Your task to perform on an android device: all mails in gmail Image 0: 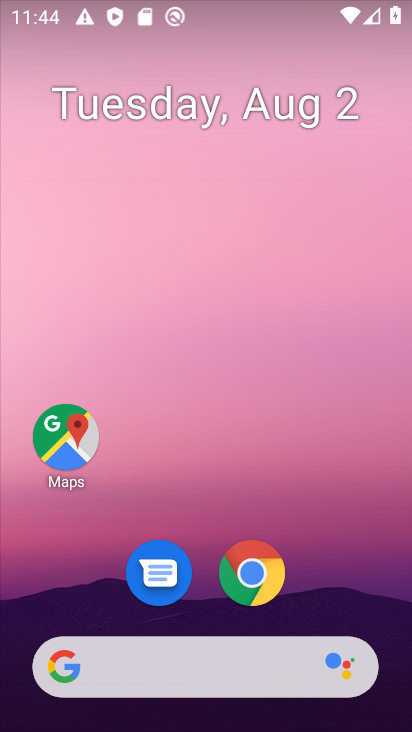
Step 0: drag from (185, 726) to (180, 111)
Your task to perform on an android device: all mails in gmail Image 1: 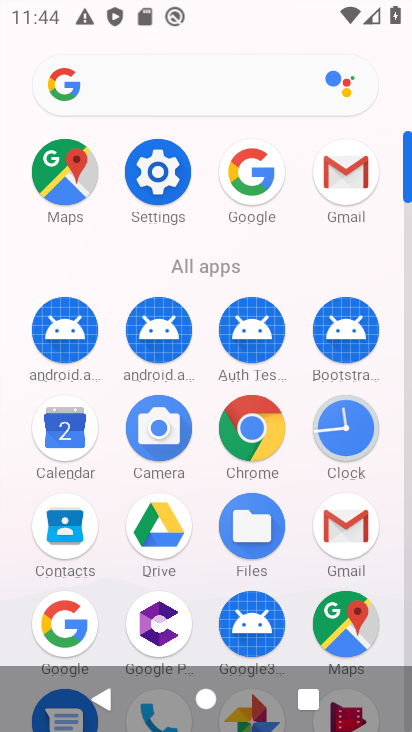
Step 1: drag from (223, 402) to (232, 6)
Your task to perform on an android device: all mails in gmail Image 2: 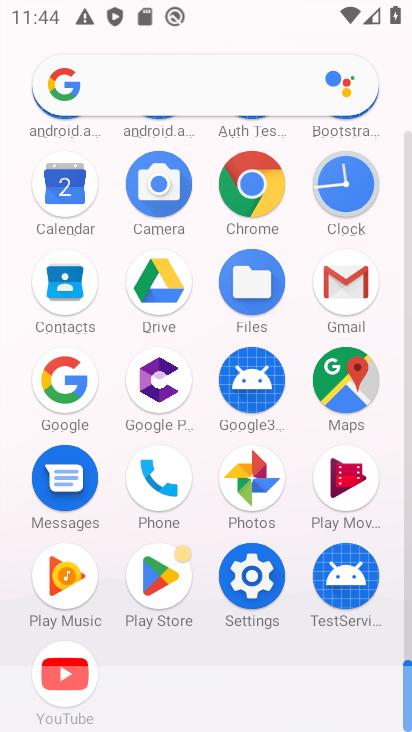
Step 2: click (354, 294)
Your task to perform on an android device: all mails in gmail Image 3: 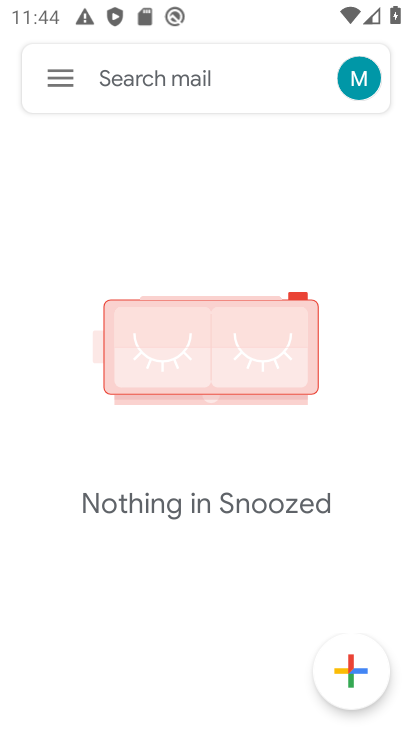
Step 3: click (49, 76)
Your task to perform on an android device: all mails in gmail Image 4: 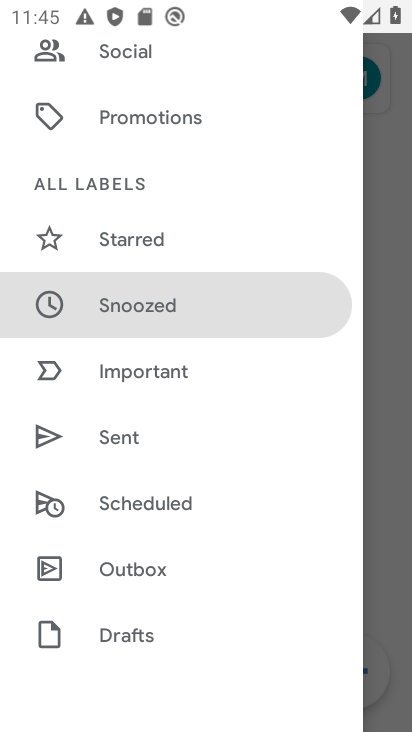
Step 4: drag from (124, 541) to (124, 228)
Your task to perform on an android device: all mails in gmail Image 5: 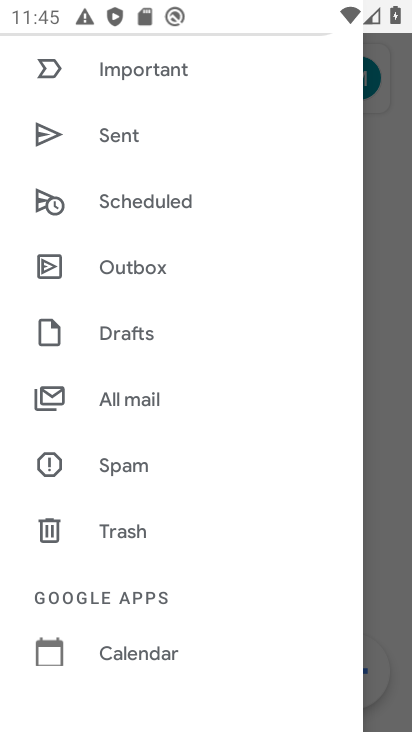
Step 5: click (152, 398)
Your task to perform on an android device: all mails in gmail Image 6: 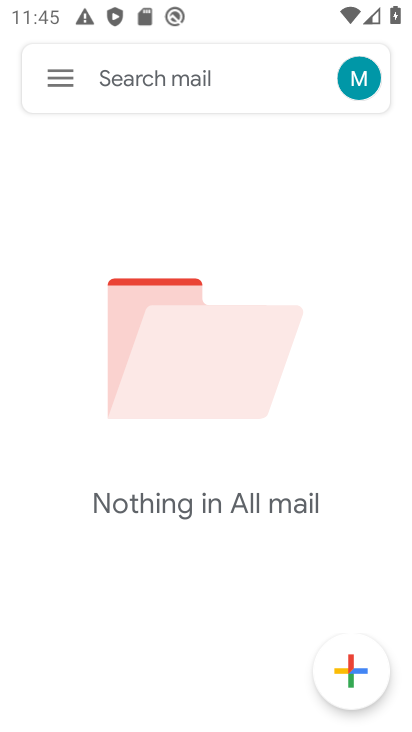
Step 6: task complete